Your task to perform on an android device: What's the weather going to be tomorrow? Image 0: 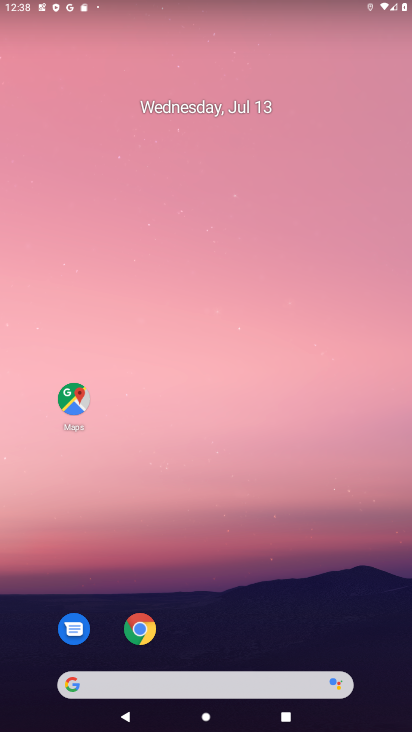
Step 0: drag from (244, 640) to (232, 326)
Your task to perform on an android device: What's the weather going to be tomorrow? Image 1: 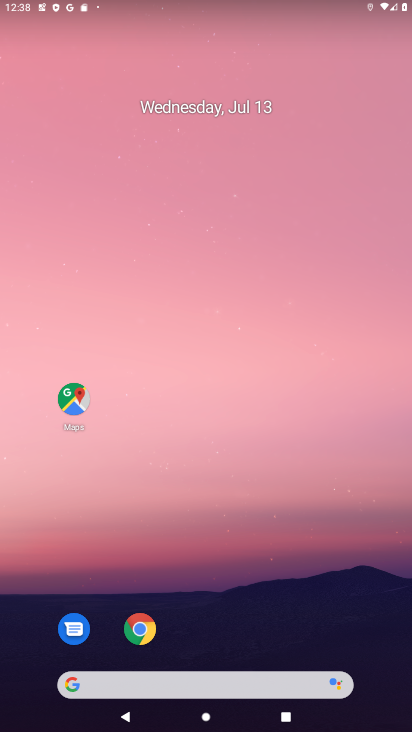
Step 1: drag from (203, 566) to (216, 252)
Your task to perform on an android device: What's the weather going to be tomorrow? Image 2: 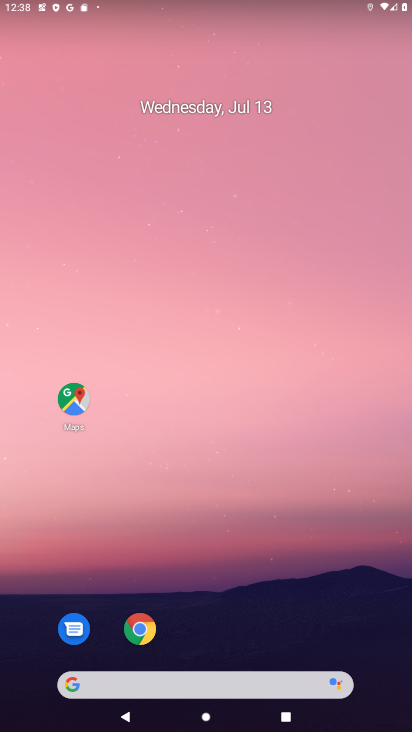
Step 2: drag from (192, 622) to (201, 225)
Your task to perform on an android device: What's the weather going to be tomorrow? Image 3: 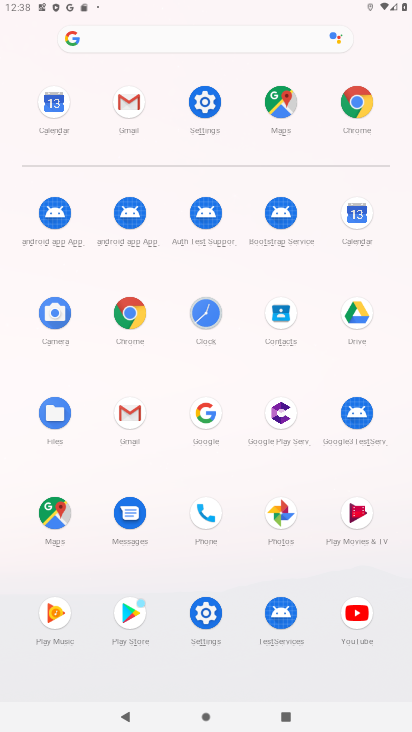
Step 3: click (357, 98)
Your task to perform on an android device: What's the weather going to be tomorrow? Image 4: 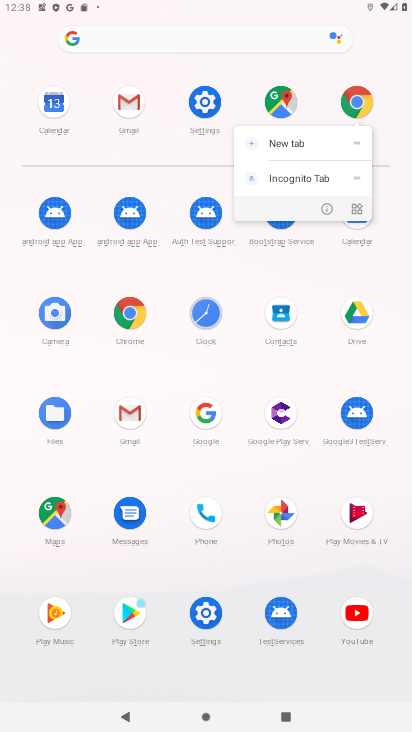
Step 4: click (357, 98)
Your task to perform on an android device: What's the weather going to be tomorrow? Image 5: 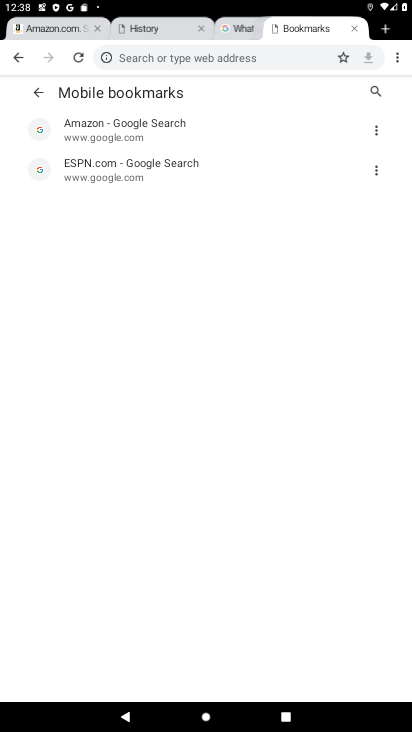
Step 5: click (382, 31)
Your task to perform on an android device: What's the weather going to be tomorrow? Image 6: 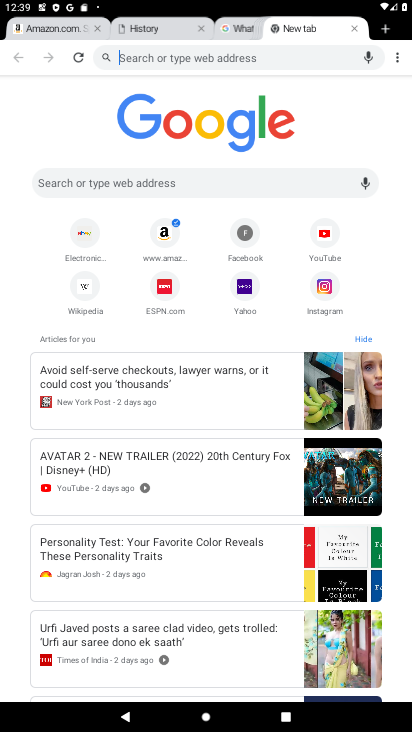
Step 6: click (219, 175)
Your task to perform on an android device: What's the weather going to be tomorrow? Image 7: 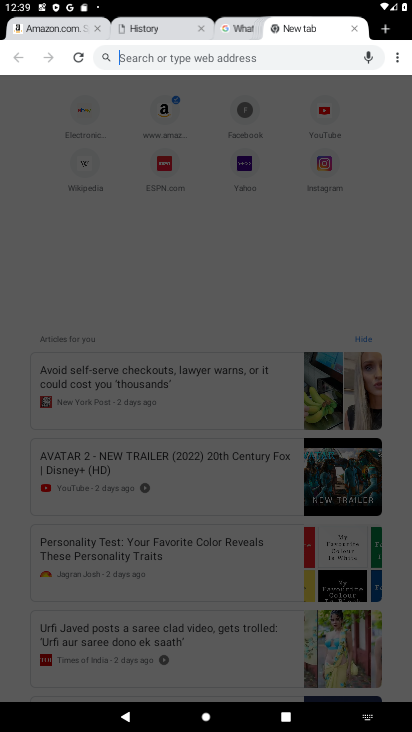
Step 7: type "What's the weather going to be tomorrow "
Your task to perform on an android device: What's the weather going to be tomorrow? Image 8: 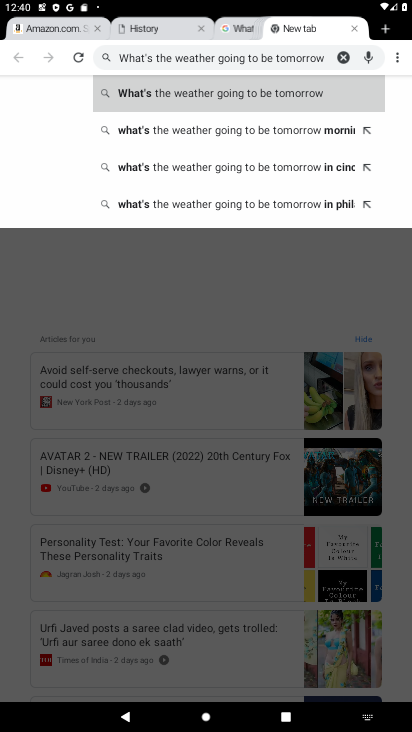
Step 8: click (329, 79)
Your task to perform on an android device: What's the weather going to be tomorrow? Image 9: 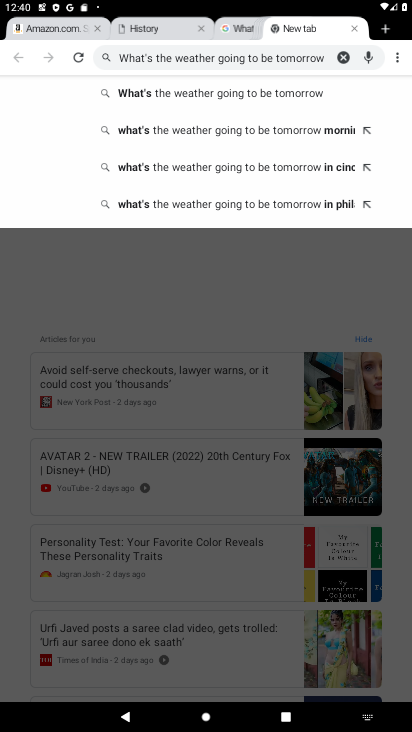
Step 9: click (282, 94)
Your task to perform on an android device: What's the weather going to be tomorrow? Image 10: 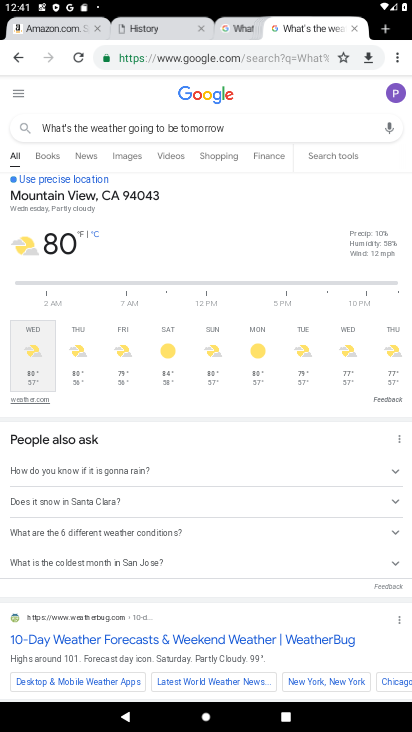
Step 10: task complete